Your task to perform on an android device: Go to notification settings Image 0: 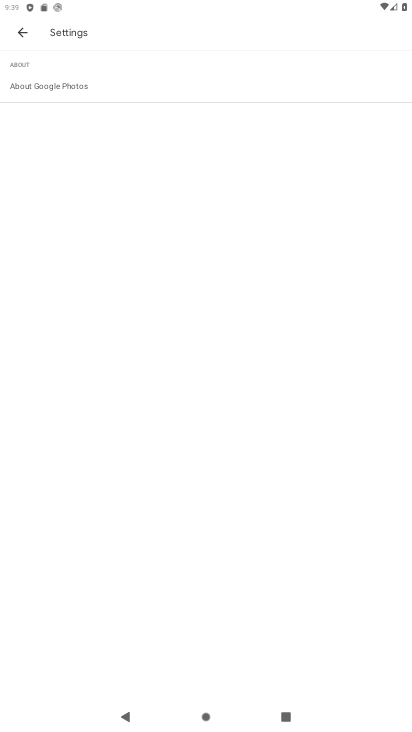
Step 0: press home button
Your task to perform on an android device: Go to notification settings Image 1: 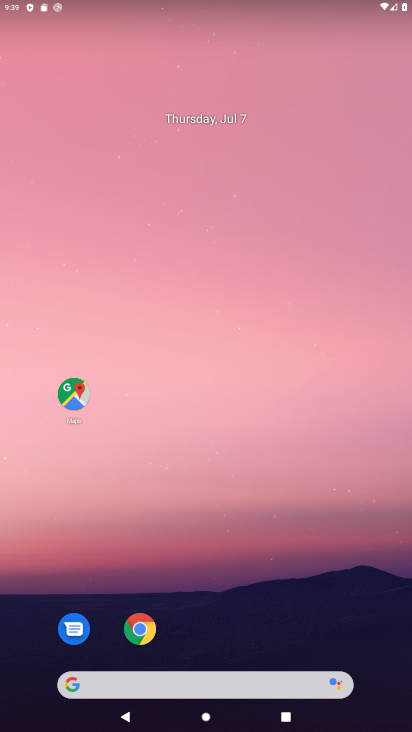
Step 1: drag from (287, 574) to (295, 298)
Your task to perform on an android device: Go to notification settings Image 2: 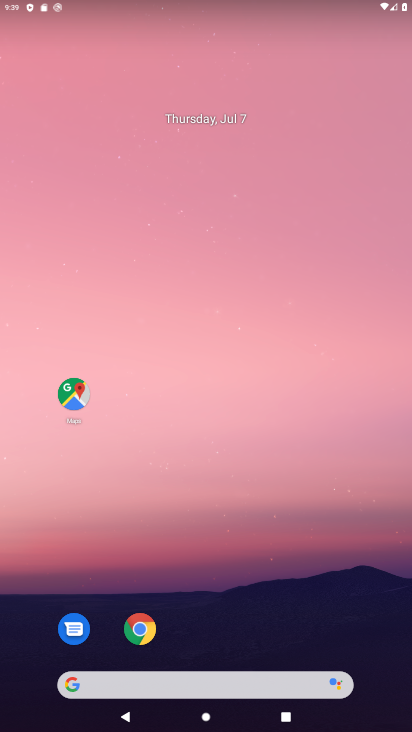
Step 2: drag from (277, 568) to (266, 4)
Your task to perform on an android device: Go to notification settings Image 3: 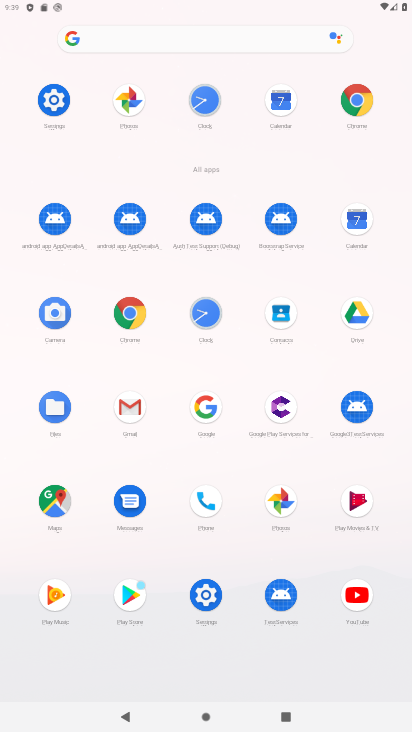
Step 3: click (54, 99)
Your task to perform on an android device: Go to notification settings Image 4: 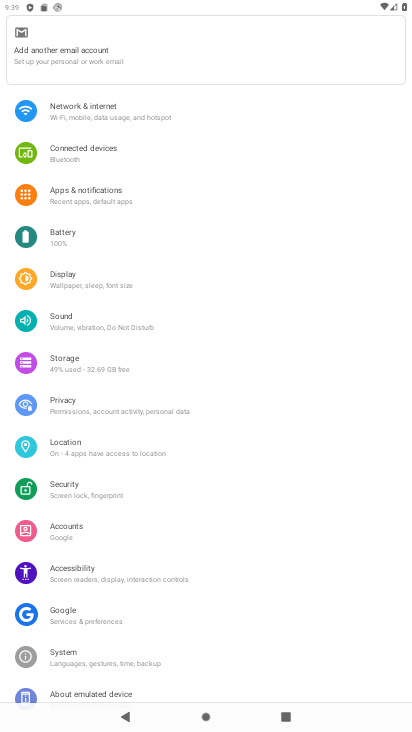
Step 4: click (126, 184)
Your task to perform on an android device: Go to notification settings Image 5: 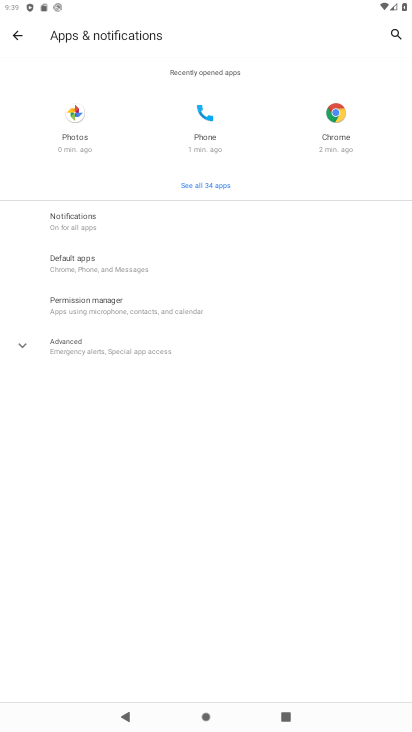
Step 5: click (104, 222)
Your task to perform on an android device: Go to notification settings Image 6: 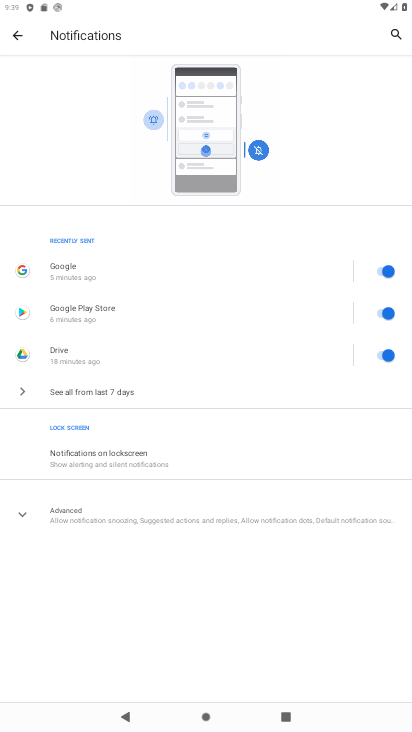
Step 6: task complete